Your task to perform on an android device: turn on airplane mode Image 0: 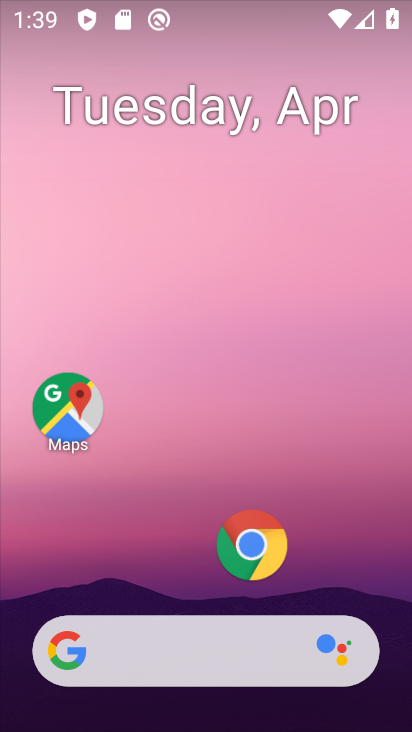
Step 0: drag from (145, 576) to (205, 237)
Your task to perform on an android device: turn on airplane mode Image 1: 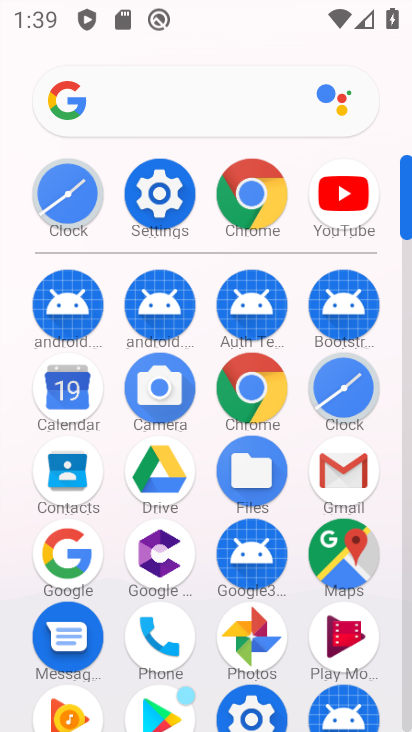
Step 1: click (154, 196)
Your task to perform on an android device: turn on airplane mode Image 2: 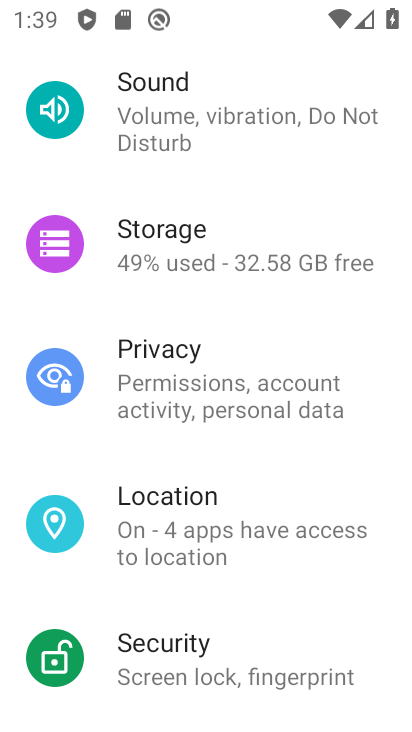
Step 2: drag from (250, 133) to (203, 683)
Your task to perform on an android device: turn on airplane mode Image 3: 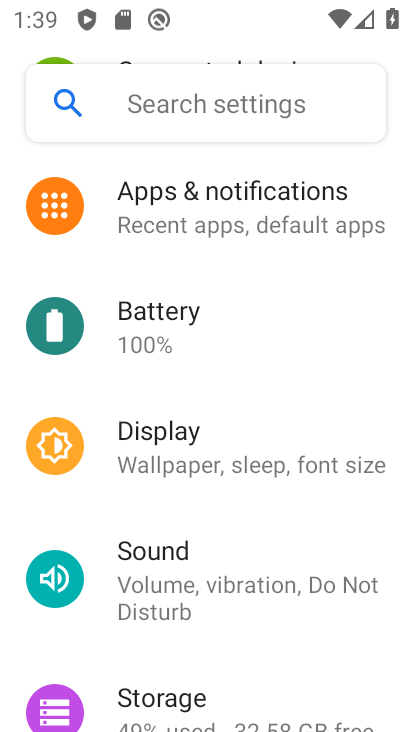
Step 3: drag from (224, 304) to (171, 702)
Your task to perform on an android device: turn on airplane mode Image 4: 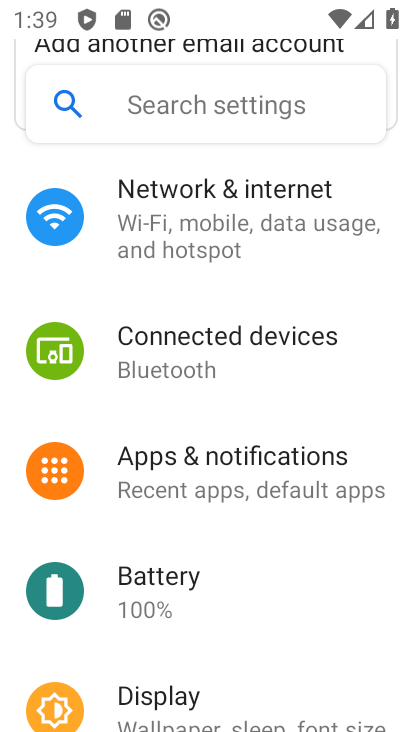
Step 4: click (258, 221)
Your task to perform on an android device: turn on airplane mode Image 5: 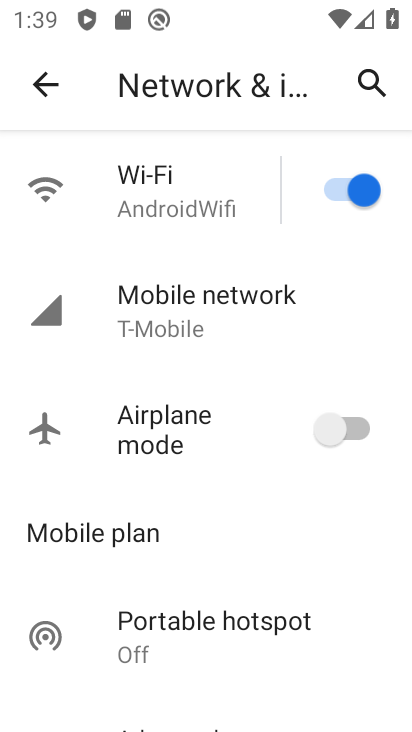
Step 5: click (332, 436)
Your task to perform on an android device: turn on airplane mode Image 6: 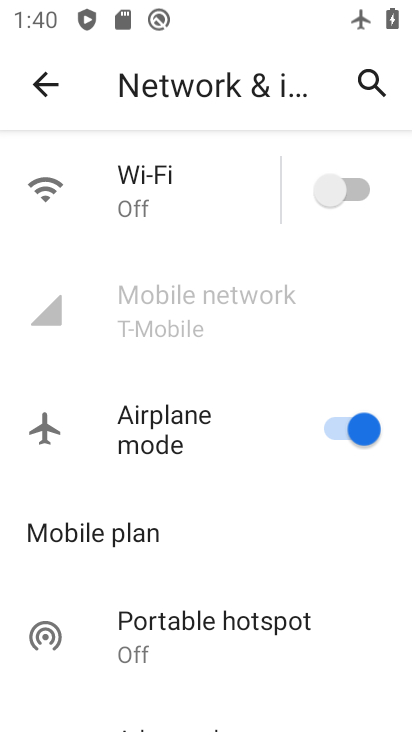
Step 6: task complete